Your task to perform on an android device: Show me productivity apps on the Play Store Image 0: 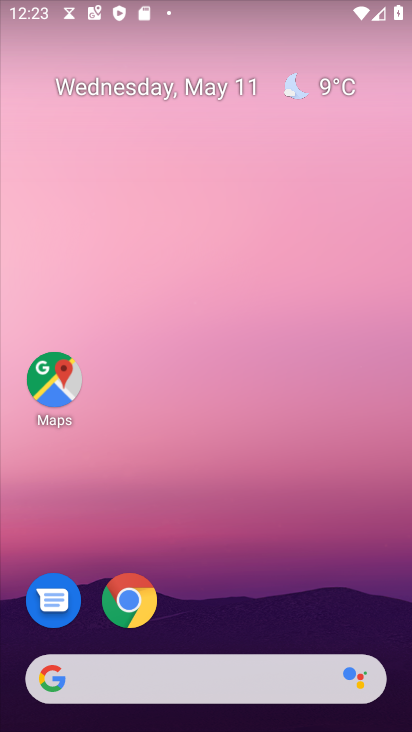
Step 0: drag from (261, 552) to (218, 66)
Your task to perform on an android device: Show me productivity apps on the Play Store Image 1: 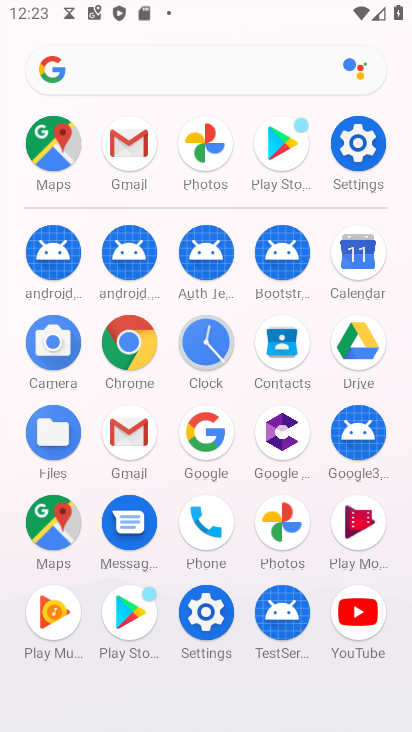
Step 1: click (132, 613)
Your task to perform on an android device: Show me productivity apps on the Play Store Image 2: 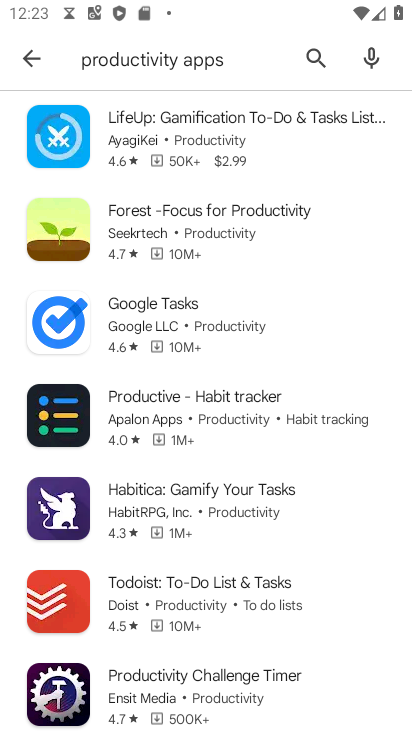
Step 2: task complete